Your task to perform on an android device: Set the phone to "Do not disturb". Image 0: 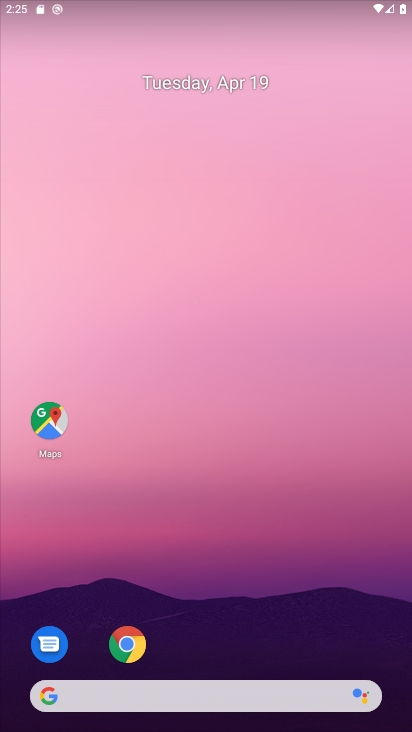
Step 0: drag from (168, 649) to (125, 74)
Your task to perform on an android device: Set the phone to "Do not disturb". Image 1: 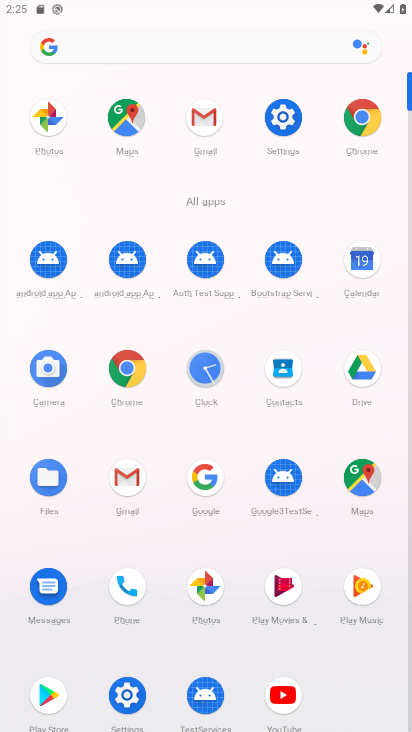
Step 1: click (279, 110)
Your task to perform on an android device: Set the phone to "Do not disturb". Image 2: 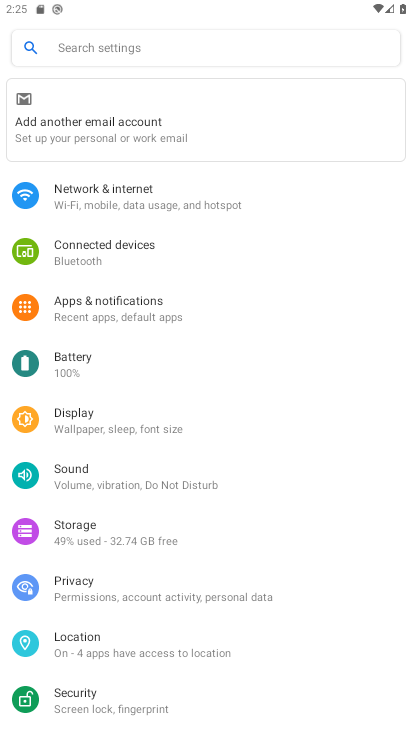
Step 2: click (186, 485)
Your task to perform on an android device: Set the phone to "Do not disturb". Image 3: 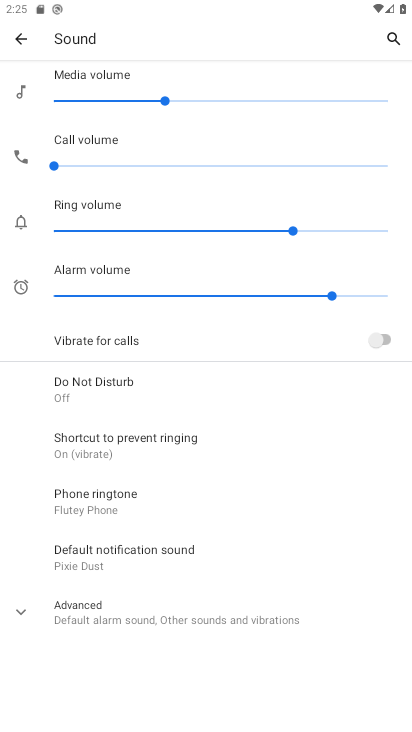
Step 3: click (88, 396)
Your task to perform on an android device: Set the phone to "Do not disturb". Image 4: 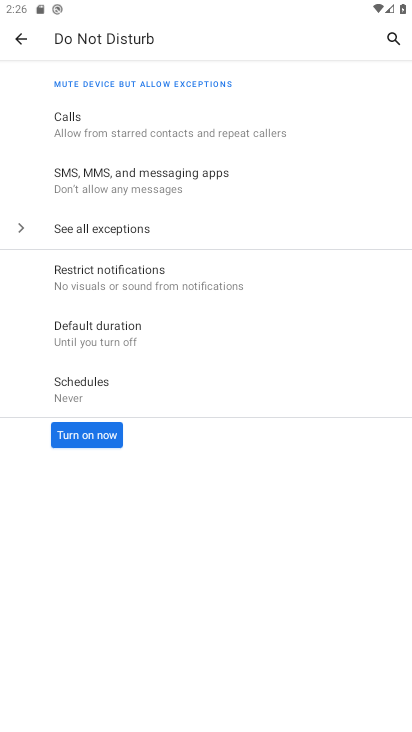
Step 4: click (81, 436)
Your task to perform on an android device: Set the phone to "Do not disturb". Image 5: 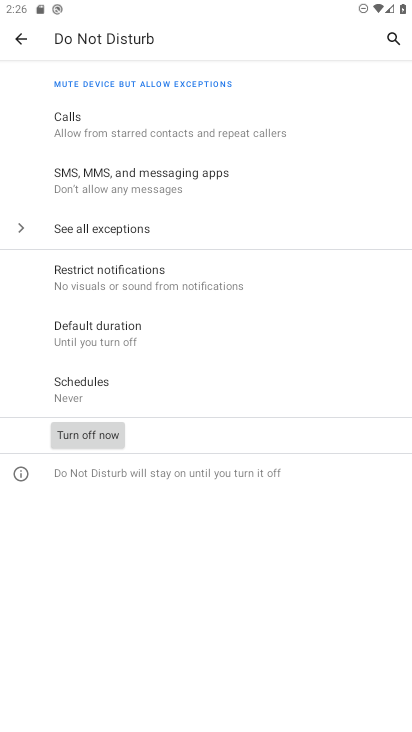
Step 5: task complete